Your task to perform on an android device: Open calendar and show me the fourth week of next month Image 0: 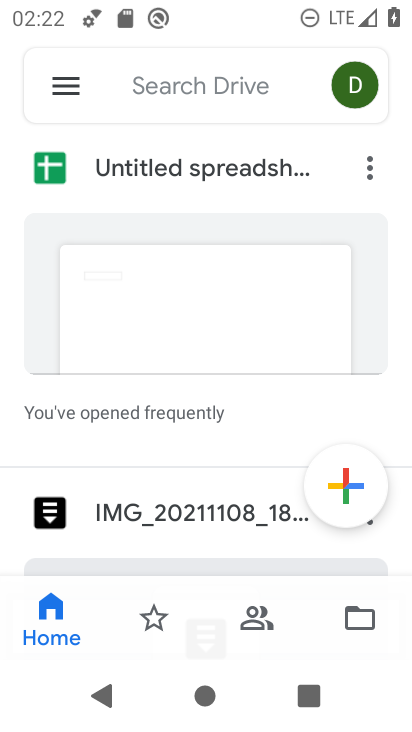
Step 0: press home button
Your task to perform on an android device: Open calendar and show me the fourth week of next month Image 1: 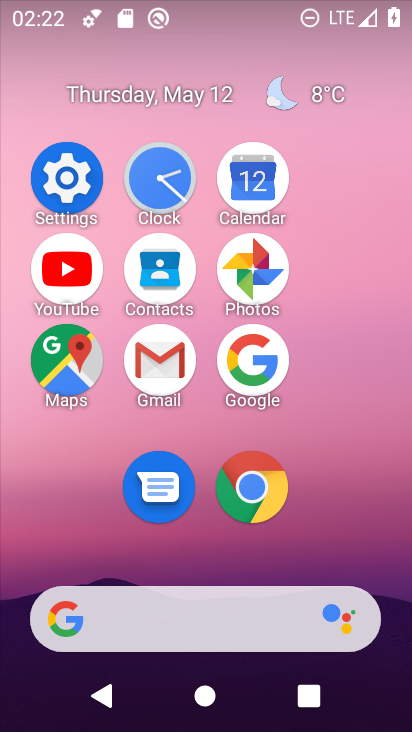
Step 1: click (255, 190)
Your task to perform on an android device: Open calendar and show me the fourth week of next month Image 2: 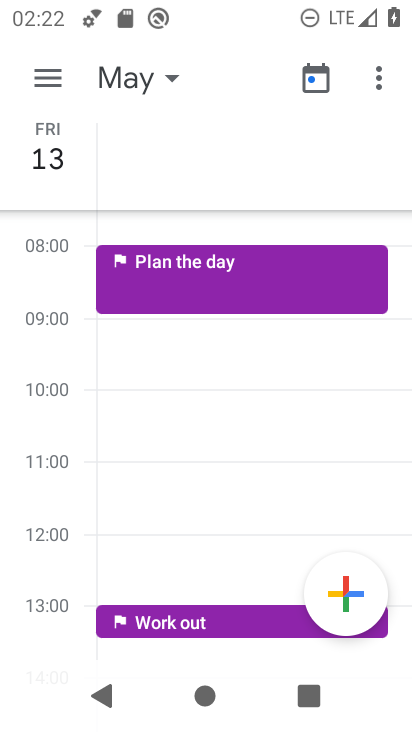
Step 2: click (188, 80)
Your task to perform on an android device: Open calendar and show me the fourth week of next month Image 3: 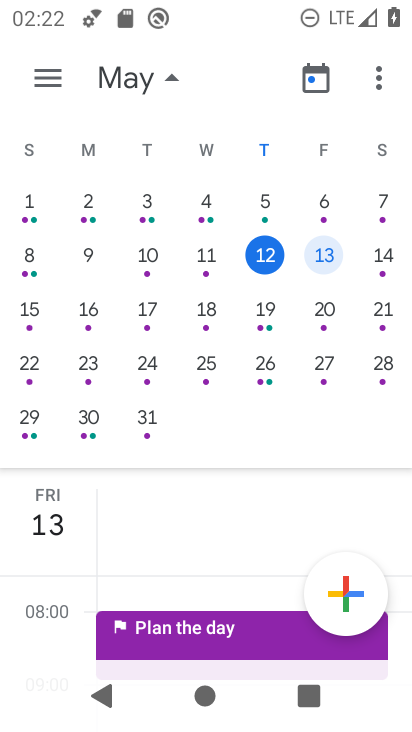
Step 3: drag from (395, 298) to (45, 327)
Your task to perform on an android device: Open calendar and show me the fourth week of next month Image 4: 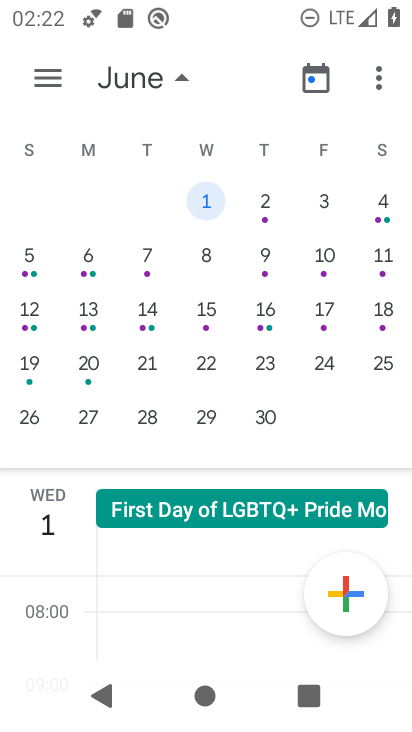
Step 4: click (43, 86)
Your task to perform on an android device: Open calendar and show me the fourth week of next month Image 5: 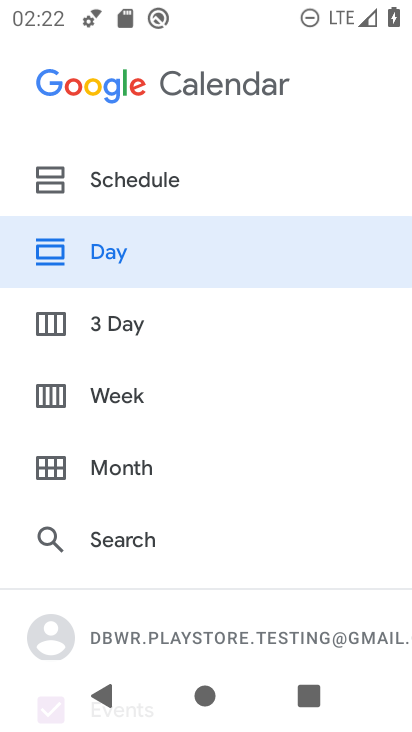
Step 5: click (139, 382)
Your task to perform on an android device: Open calendar and show me the fourth week of next month Image 6: 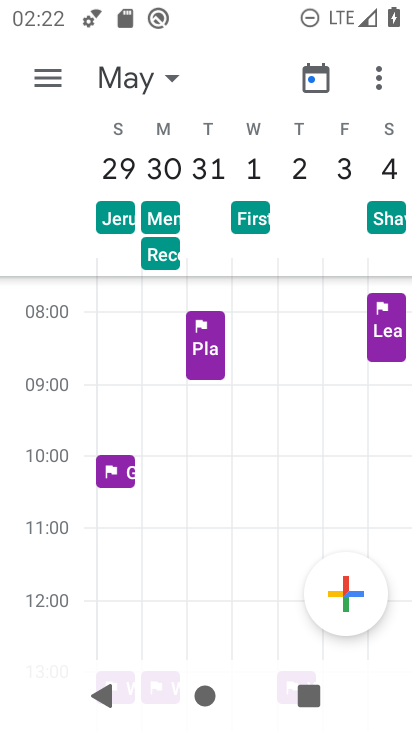
Step 6: task complete